Your task to perform on an android device: turn off javascript in the chrome app Image 0: 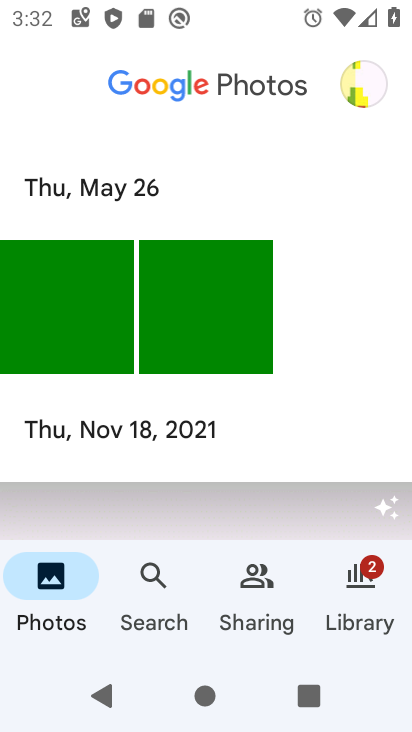
Step 0: press home button
Your task to perform on an android device: turn off javascript in the chrome app Image 1: 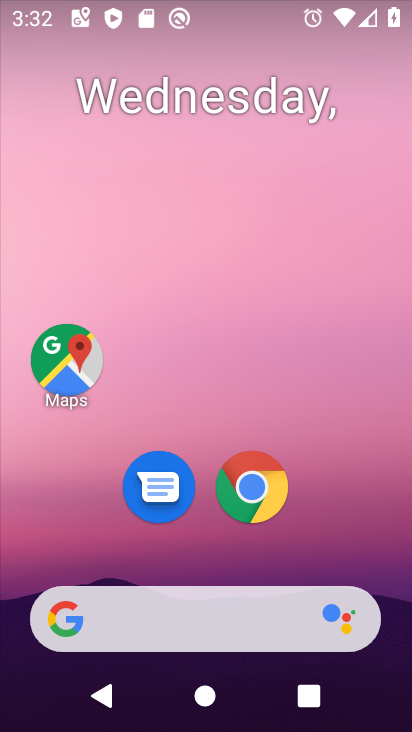
Step 1: drag from (362, 552) to (375, 155)
Your task to perform on an android device: turn off javascript in the chrome app Image 2: 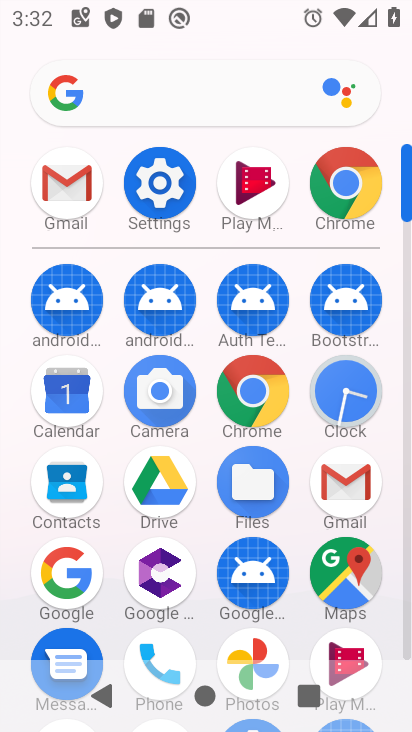
Step 2: click (269, 396)
Your task to perform on an android device: turn off javascript in the chrome app Image 3: 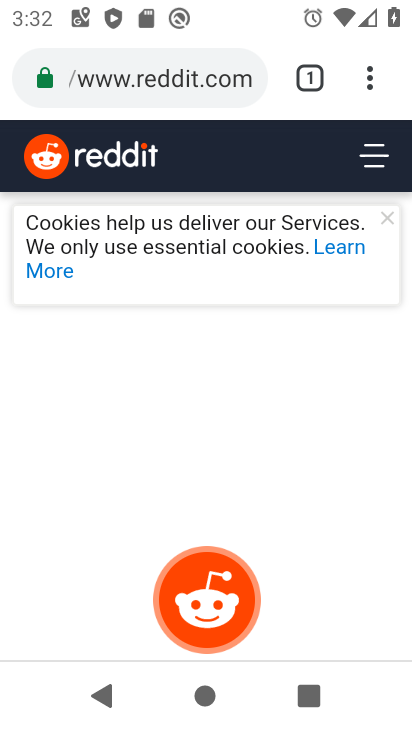
Step 3: click (371, 89)
Your task to perform on an android device: turn off javascript in the chrome app Image 4: 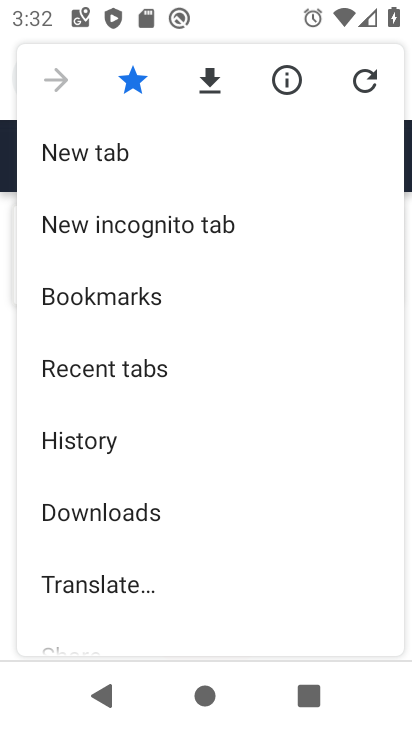
Step 4: drag from (324, 466) to (319, 406)
Your task to perform on an android device: turn off javascript in the chrome app Image 5: 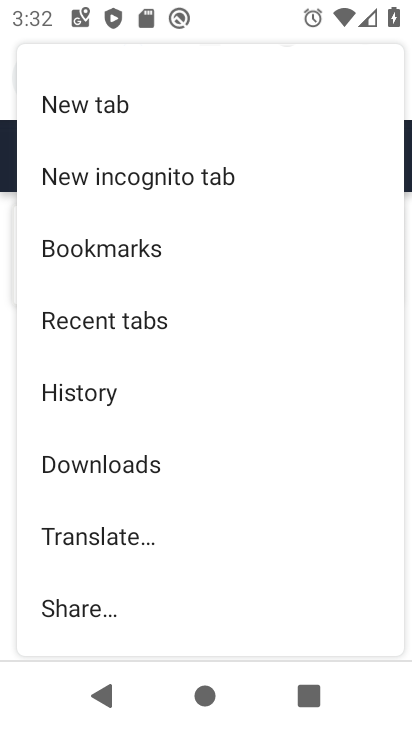
Step 5: drag from (325, 500) to (326, 417)
Your task to perform on an android device: turn off javascript in the chrome app Image 6: 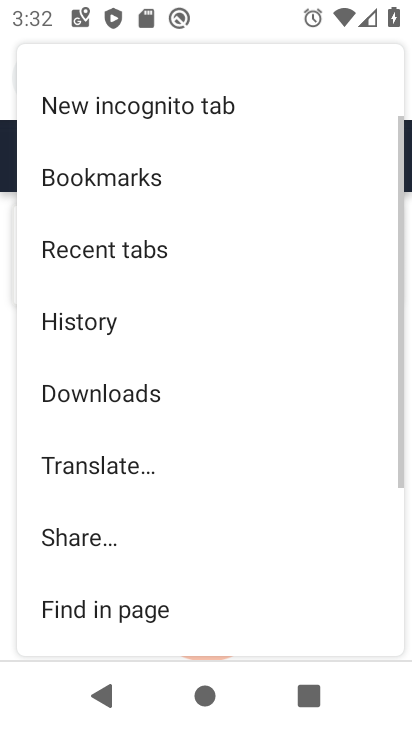
Step 6: drag from (328, 512) to (323, 437)
Your task to perform on an android device: turn off javascript in the chrome app Image 7: 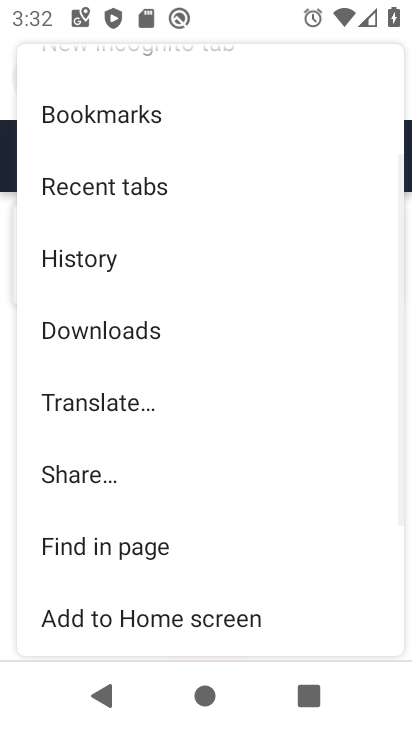
Step 7: drag from (319, 523) to (313, 452)
Your task to perform on an android device: turn off javascript in the chrome app Image 8: 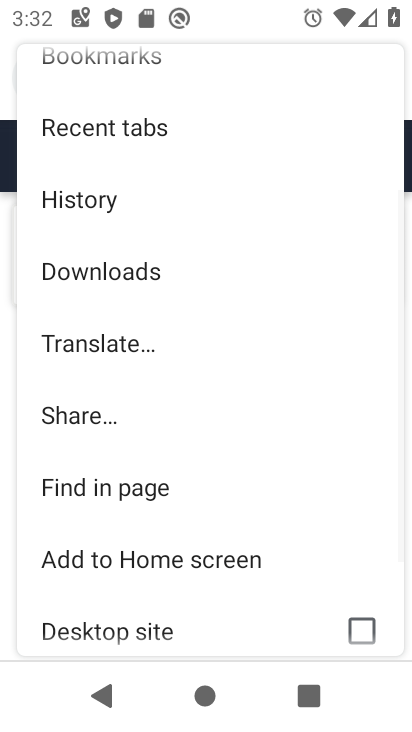
Step 8: drag from (324, 523) to (328, 435)
Your task to perform on an android device: turn off javascript in the chrome app Image 9: 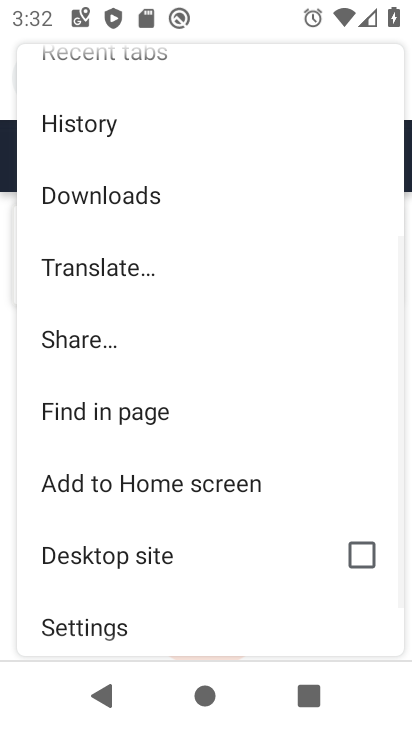
Step 9: drag from (300, 531) to (297, 418)
Your task to perform on an android device: turn off javascript in the chrome app Image 10: 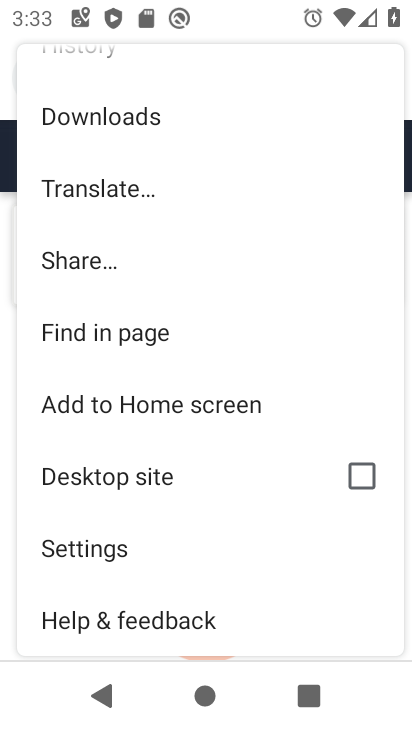
Step 10: click (236, 549)
Your task to perform on an android device: turn off javascript in the chrome app Image 11: 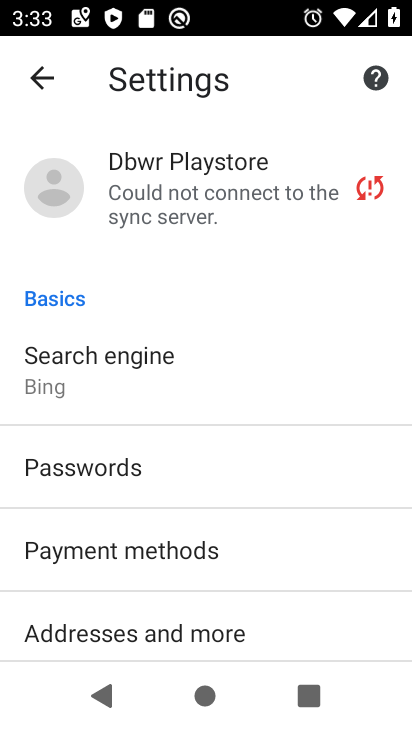
Step 11: drag from (296, 539) to (317, 432)
Your task to perform on an android device: turn off javascript in the chrome app Image 12: 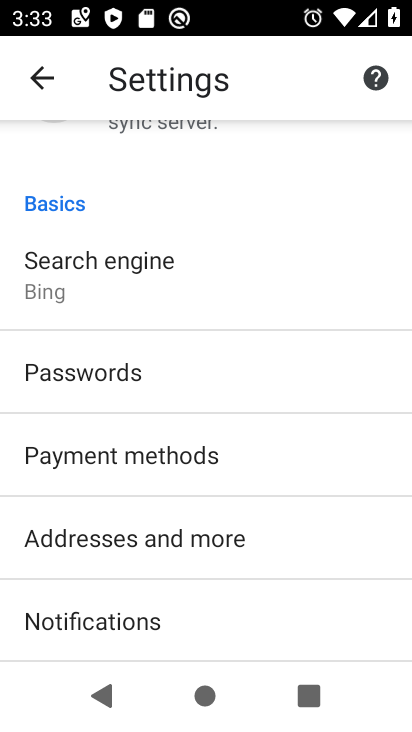
Step 12: drag from (327, 519) to (330, 406)
Your task to perform on an android device: turn off javascript in the chrome app Image 13: 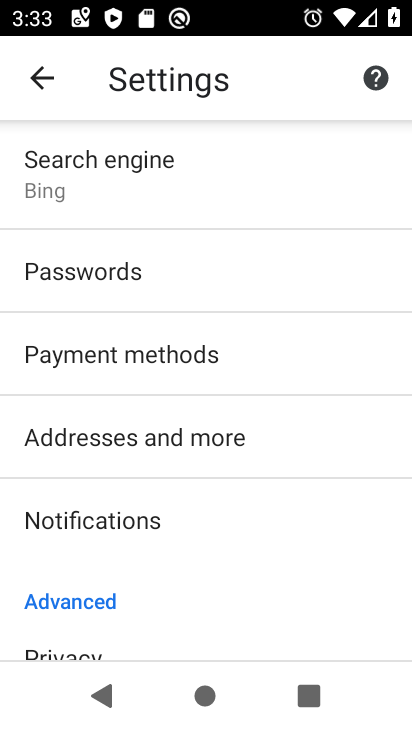
Step 13: drag from (322, 516) to (327, 365)
Your task to perform on an android device: turn off javascript in the chrome app Image 14: 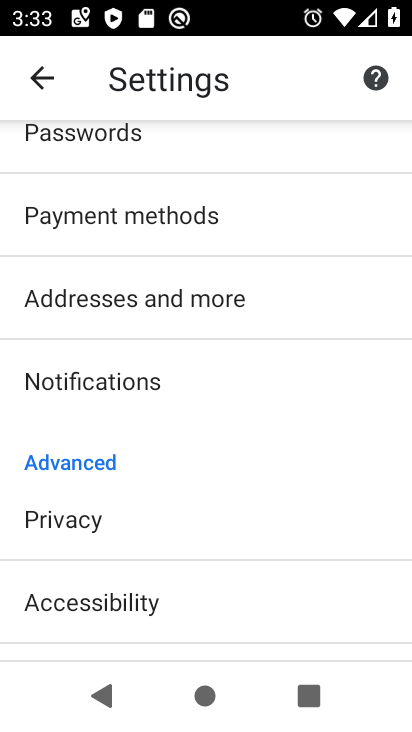
Step 14: drag from (336, 507) to (335, 366)
Your task to perform on an android device: turn off javascript in the chrome app Image 15: 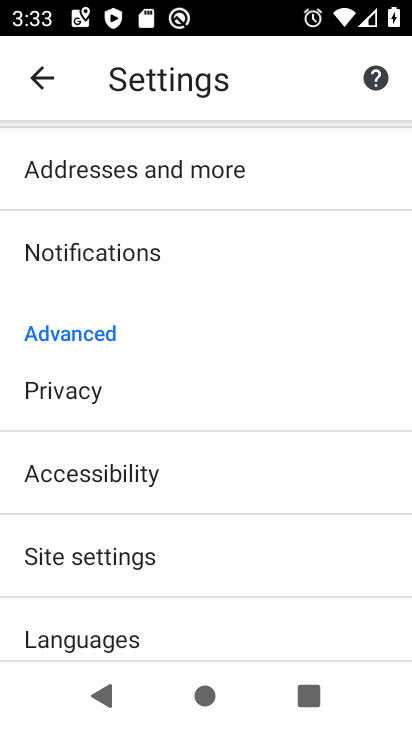
Step 15: drag from (325, 483) to (338, 343)
Your task to perform on an android device: turn off javascript in the chrome app Image 16: 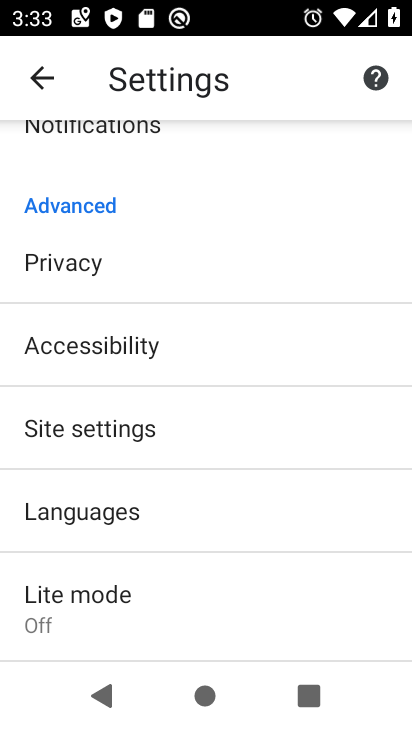
Step 16: drag from (320, 501) to (323, 404)
Your task to perform on an android device: turn off javascript in the chrome app Image 17: 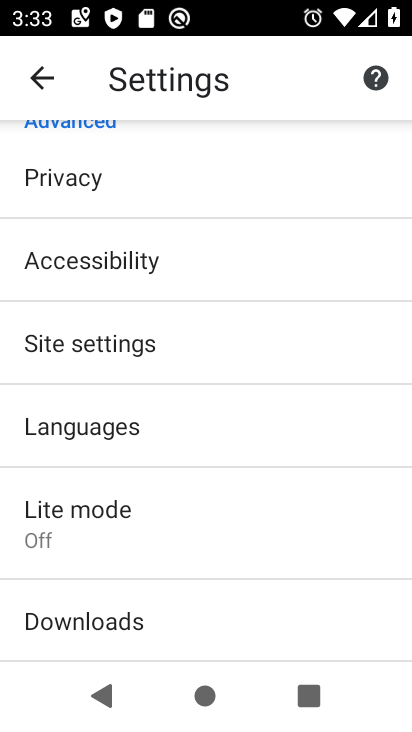
Step 17: drag from (301, 536) to (291, 258)
Your task to perform on an android device: turn off javascript in the chrome app Image 18: 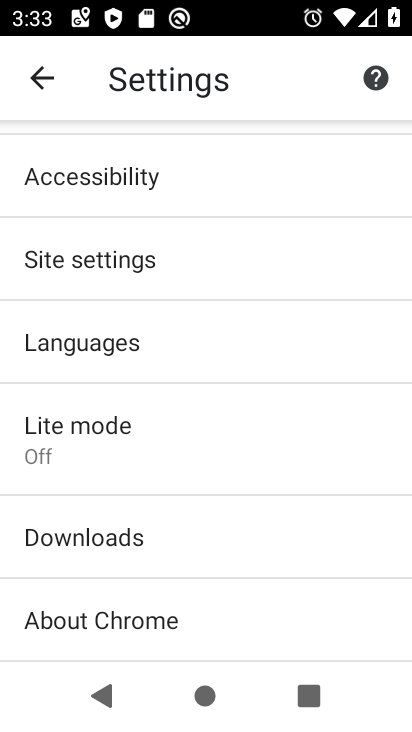
Step 18: drag from (316, 431) to (313, 298)
Your task to perform on an android device: turn off javascript in the chrome app Image 19: 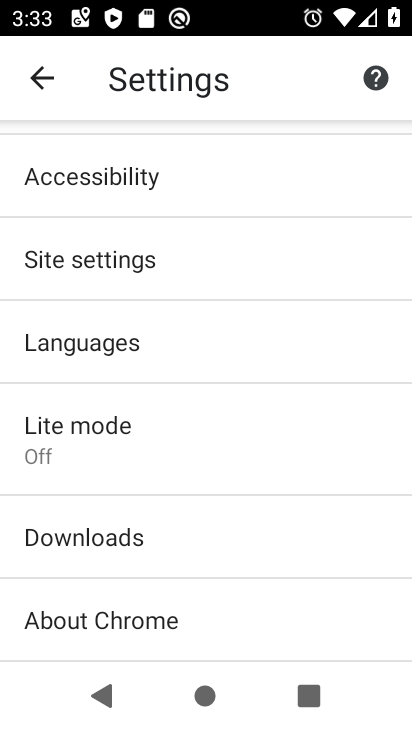
Step 19: click (207, 261)
Your task to perform on an android device: turn off javascript in the chrome app Image 20: 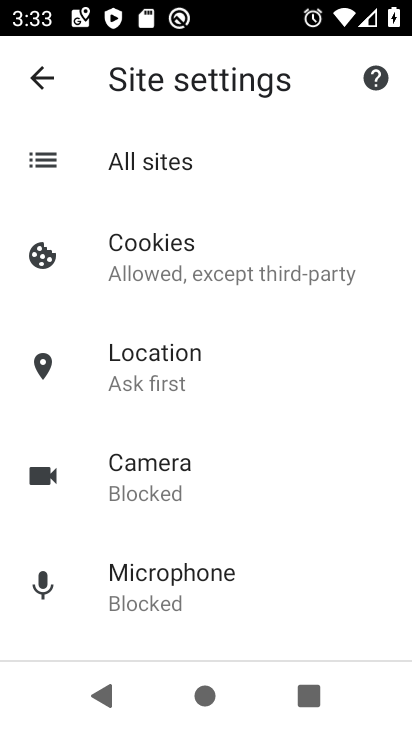
Step 20: drag from (311, 501) to (326, 342)
Your task to perform on an android device: turn off javascript in the chrome app Image 21: 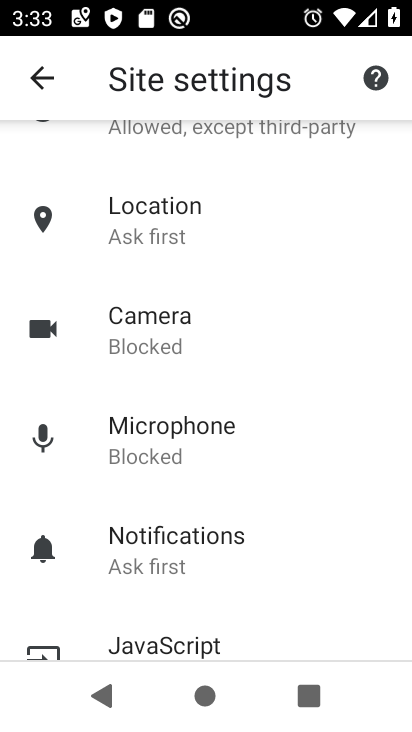
Step 21: drag from (318, 508) to (324, 356)
Your task to perform on an android device: turn off javascript in the chrome app Image 22: 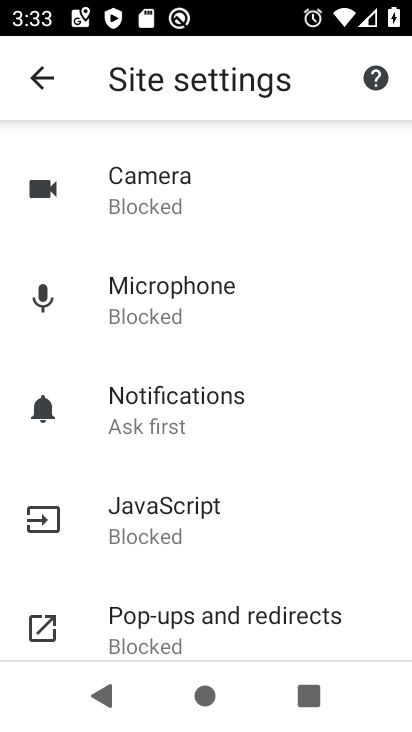
Step 22: click (269, 540)
Your task to perform on an android device: turn off javascript in the chrome app Image 23: 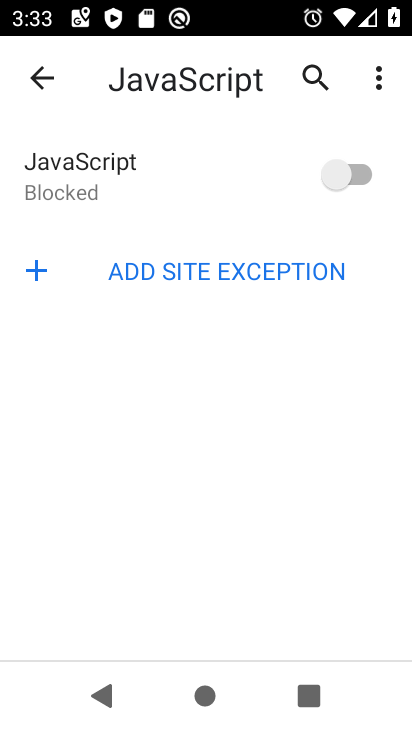
Step 23: task complete